Your task to perform on an android device: Set the phone to "Do not disturb". Image 0: 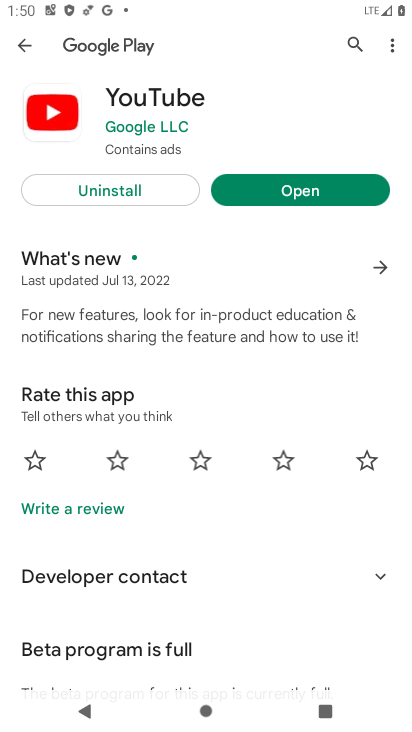
Step 0: press home button
Your task to perform on an android device: Set the phone to "Do not disturb". Image 1: 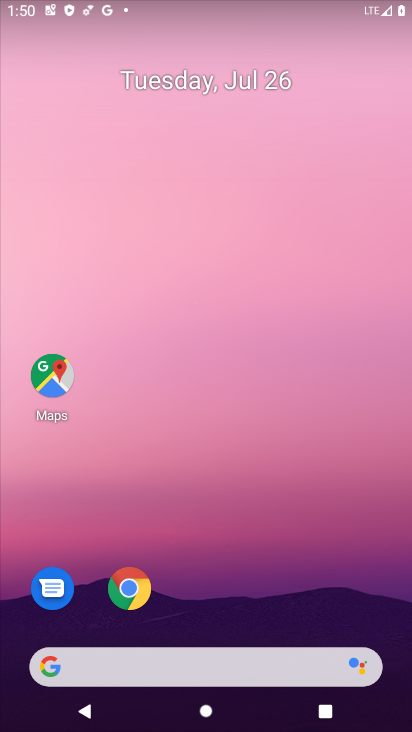
Step 1: drag from (214, 637) to (186, 48)
Your task to perform on an android device: Set the phone to "Do not disturb". Image 2: 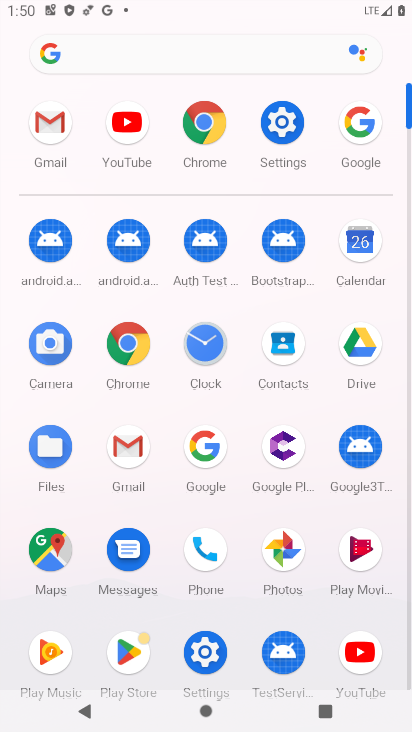
Step 2: drag from (175, 5) to (222, 527)
Your task to perform on an android device: Set the phone to "Do not disturb". Image 3: 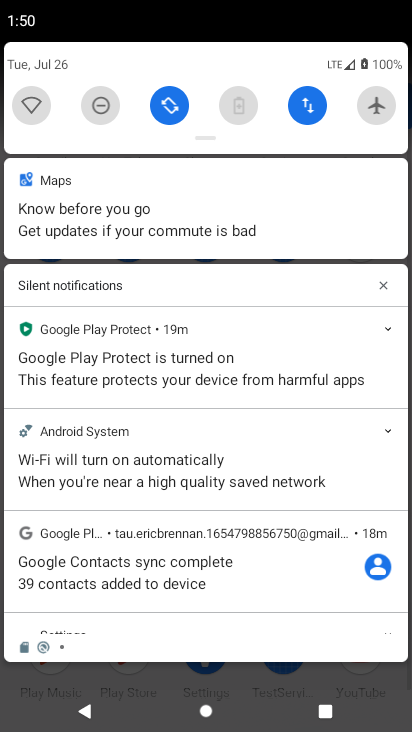
Step 3: click (91, 104)
Your task to perform on an android device: Set the phone to "Do not disturb". Image 4: 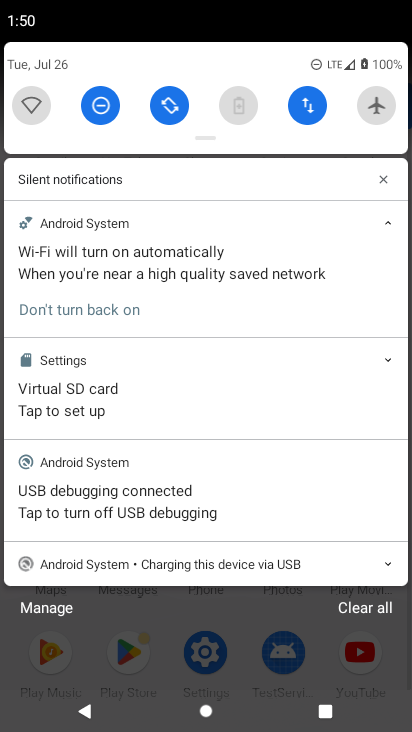
Step 4: task complete